Your task to perform on an android device: Search for Mexican restaurants on Maps Image 0: 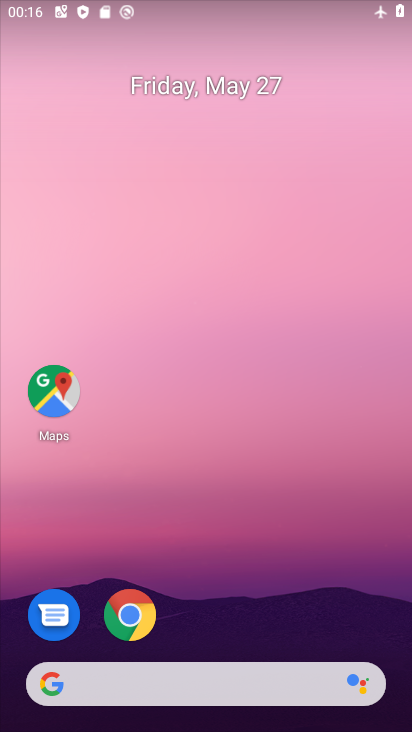
Step 0: drag from (353, 624) to (353, 295)
Your task to perform on an android device: Search for Mexican restaurants on Maps Image 1: 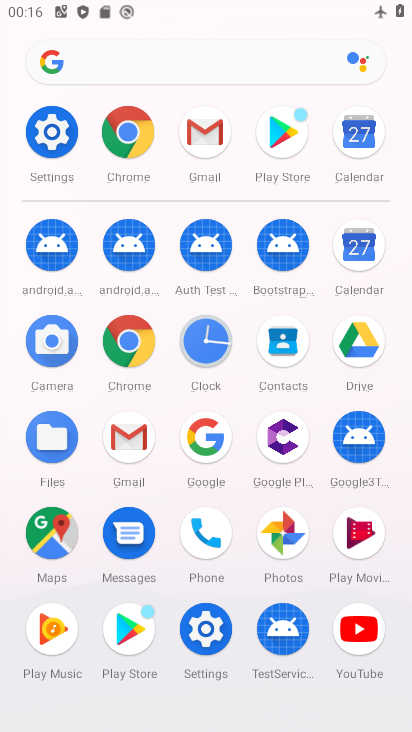
Step 1: click (57, 544)
Your task to perform on an android device: Search for Mexican restaurants on Maps Image 2: 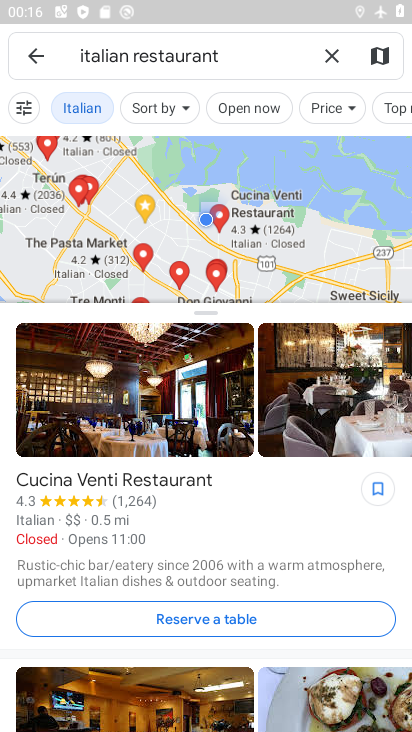
Step 2: click (332, 54)
Your task to perform on an android device: Search for Mexican restaurants on Maps Image 3: 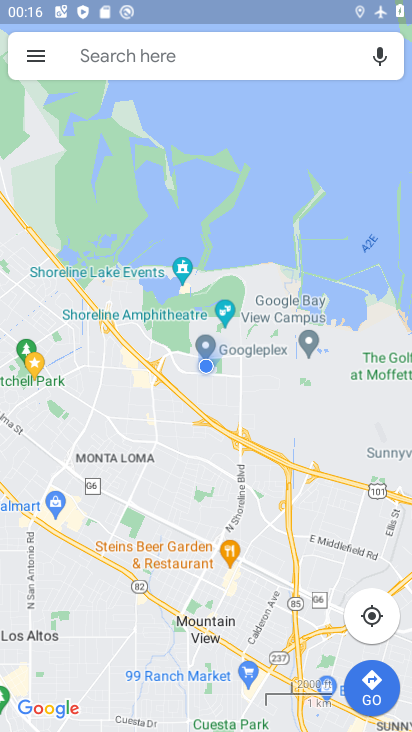
Step 3: click (287, 51)
Your task to perform on an android device: Search for Mexican restaurants on Maps Image 4: 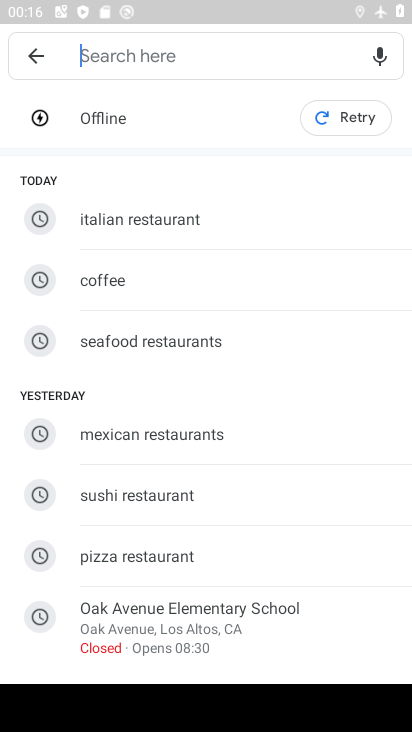
Step 4: type "mexcian restaurants"
Your task to perform on an android device: Search for Mexican restaurants on Maps Image 5: 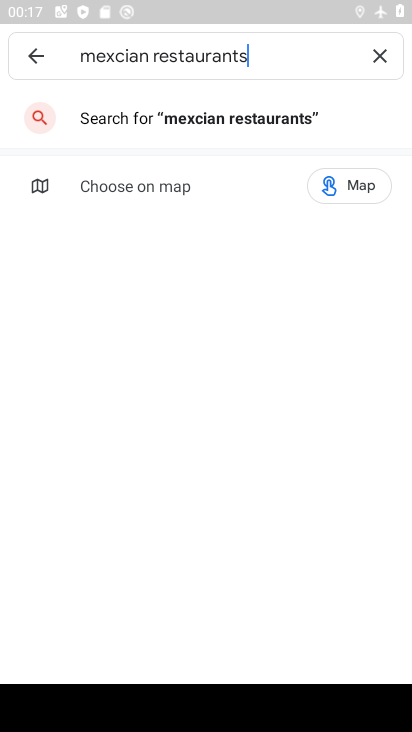
Step 5: task complete